Your task to perform on an android device: add a contact Image 0: 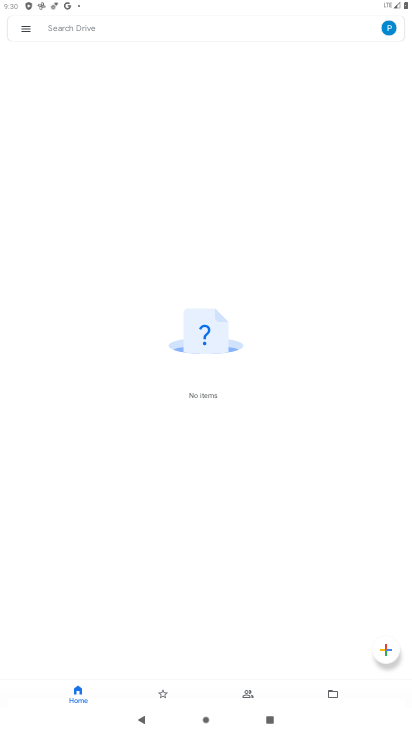
Step 0: press home button
Your task to perform on an android device: add a contact Image 1: 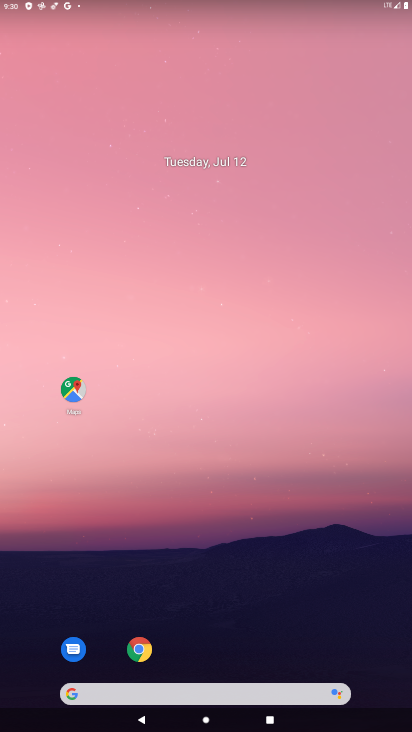
Step 1: drag from (286, 644) to (202, 208)
Your task to perform on an android device: add a contact Image 2: 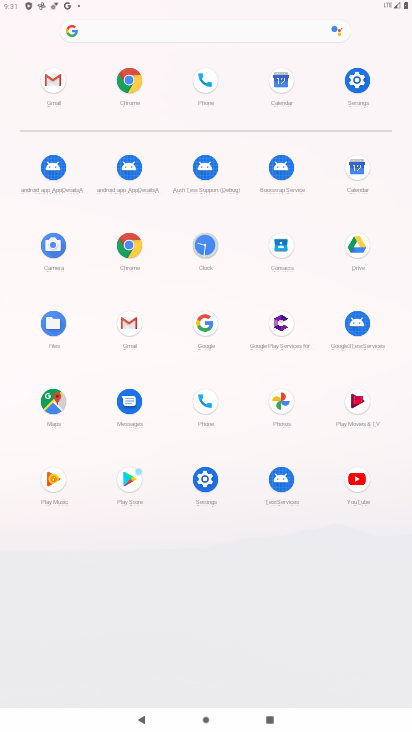
Step 2: click (280, 264)
Your task to perform on an android device: add a contact Image 3: 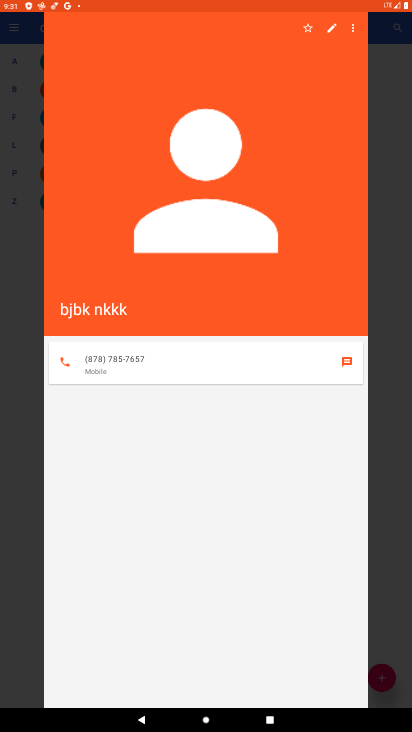
Step 3: click (141, 731)
Your task to perform on an android device: add a contact Image 4: 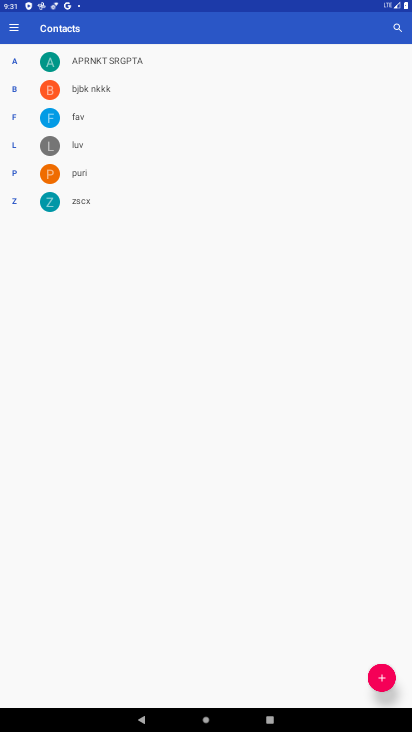
Step 4: click (382, 679)
Your task to perform on an android device: add a contact Image 5: 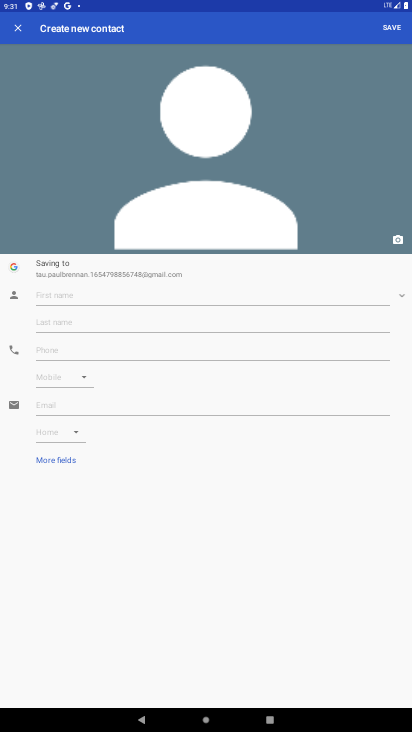
Step 5: click (193, 303)
Your task to perform on an android device: add a contact Image 6: 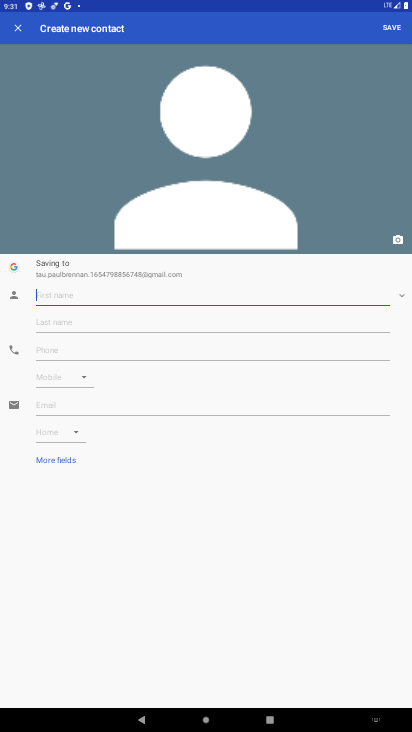
Step 6: type "kj kjk"
Your task to perform on an android device: add a contact Image 7: 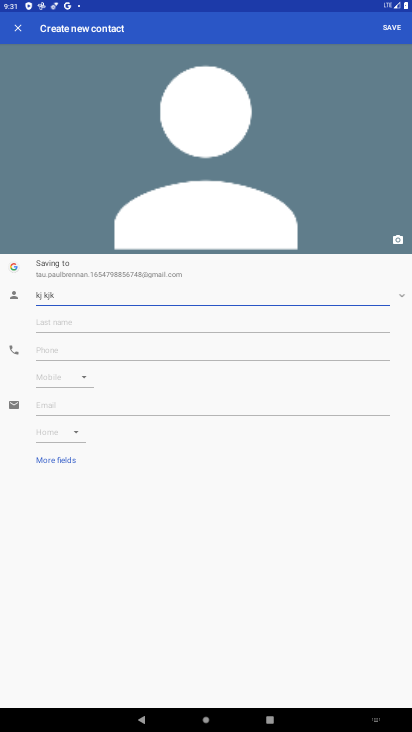
Step 7: click (150, 333)
Your task to perform on an android device: add a contact Image 8: 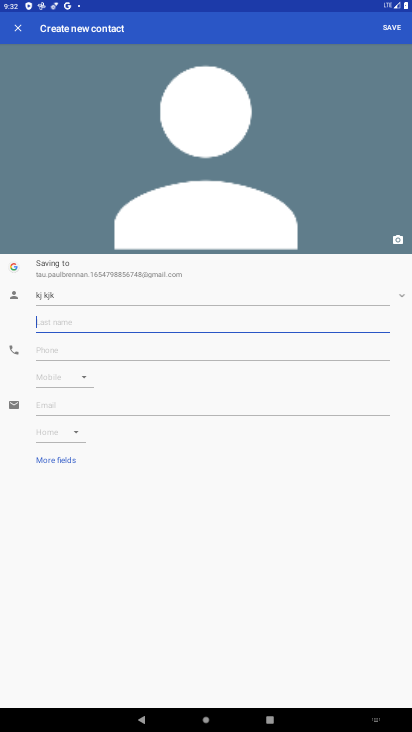
Step 8: type "kj jk k"
Your task to perform on an android device: add a contact Image 9: 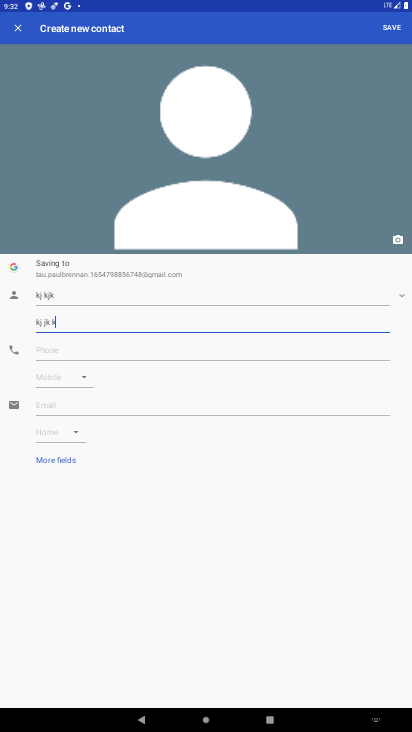
Step 9: click (89, 345)
Your task to perform on an android device: add a contact Image 10: 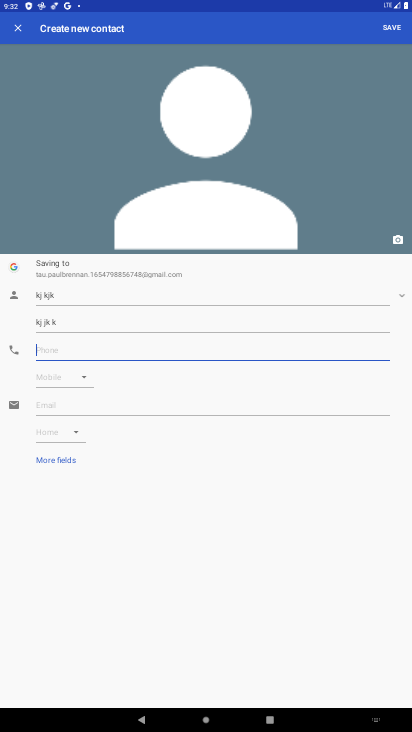
Step 10: type "90798677"
Your task to perform on an android device: add a contact Image 11: 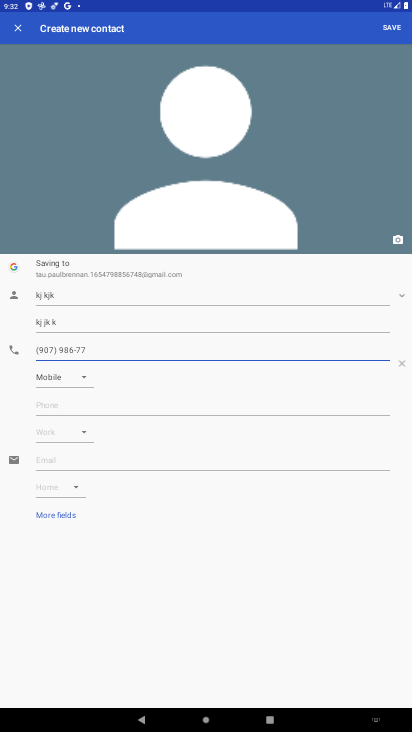
Step 11: click (385, 33)
Your task to perform on an android device: add a contact Image 12: 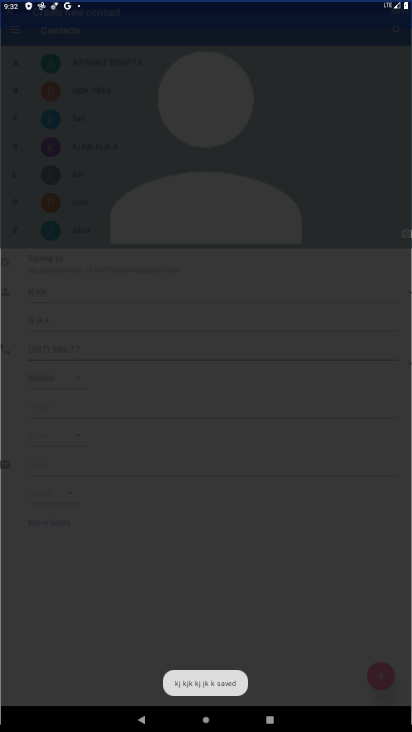
Step 12: task complete